Your task to perform on an android device: change notifications settings Image 0: 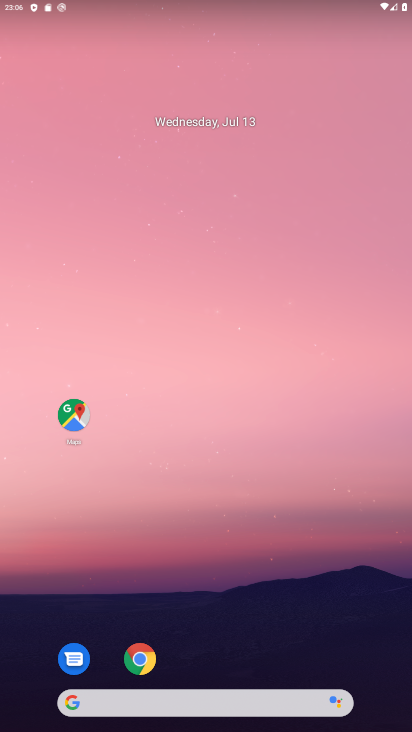
Step 0: drag from (361, 639) to (324, 228)
Your task to perform on an android device: change notifications settings Image 1: 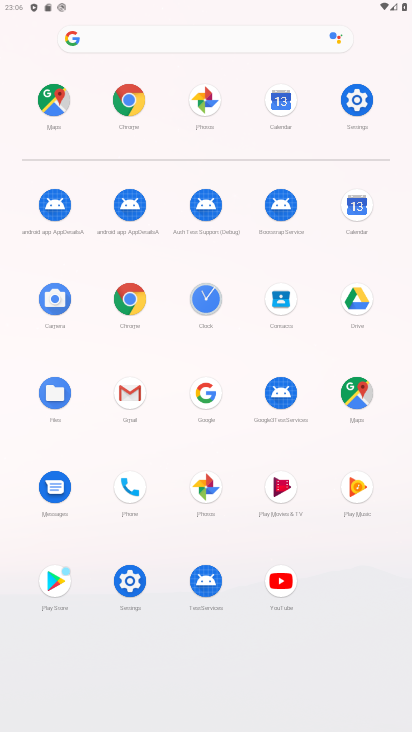
Step 1: click (131, 581)
Your task to perform on an android device: change notifications settings Image 2: 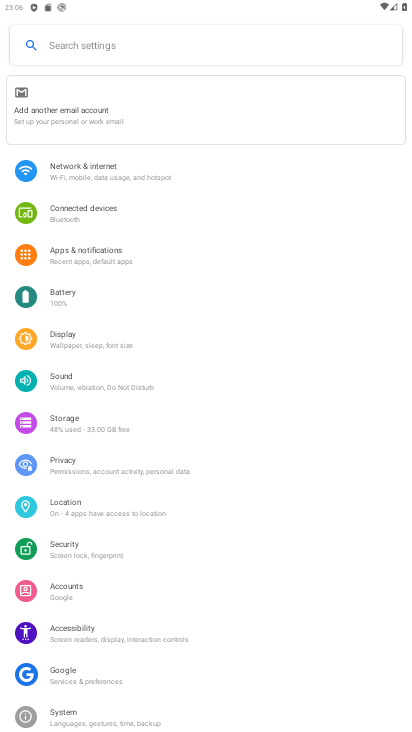
Step 2: click (83, 252)
Your task to perform on an android device: change notifications settings Image 3: 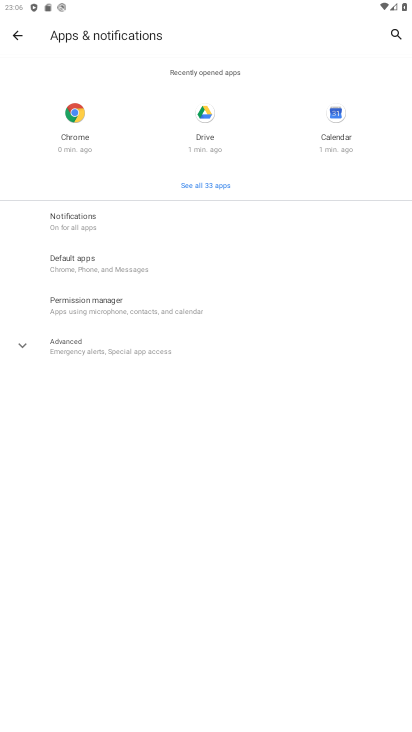
Step 3: click (62, 220)
Your task to perform on an android device: change notifications settings Image 4: 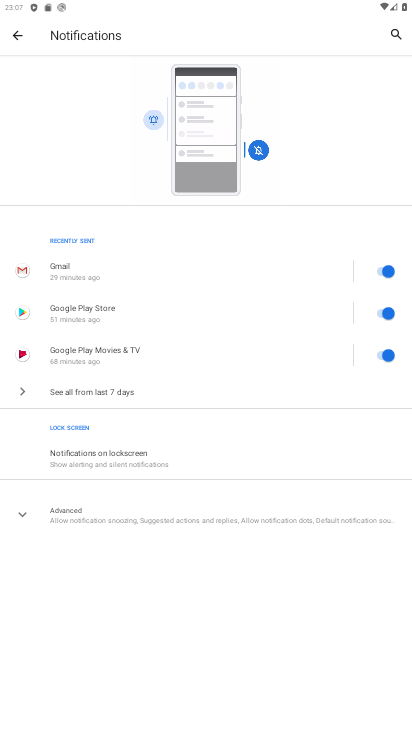
Step 4: click (18, 511)
Your task to perform on an android device: change notifications settings Image 5: 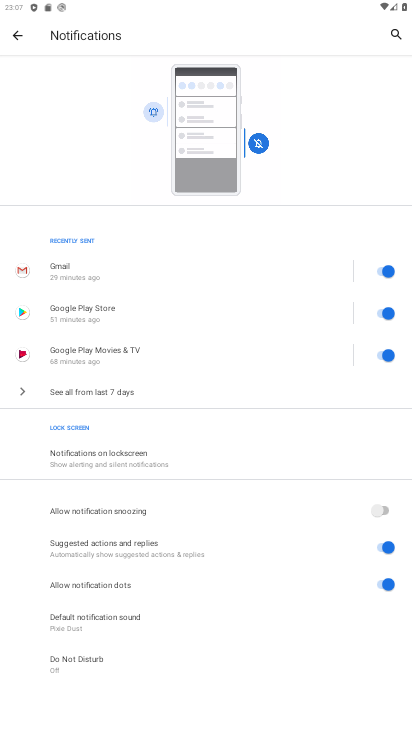
Step 5: click (379, 589)
Your task to perform on an android device: change notifications settings Image 6: 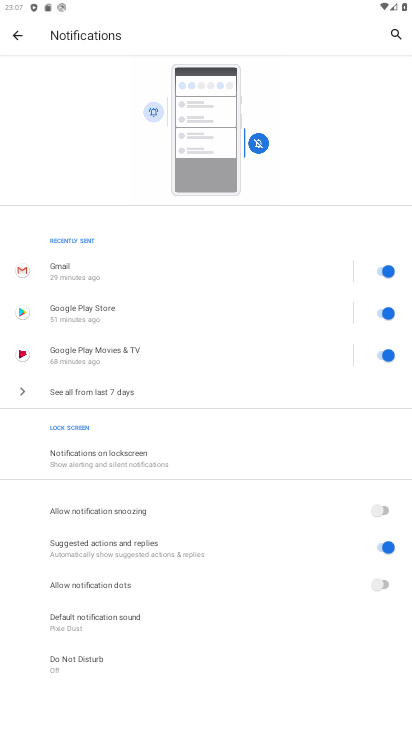
Step 6: click (384, 508)
Your task to perform on an android device: change notifications settings Image 7: 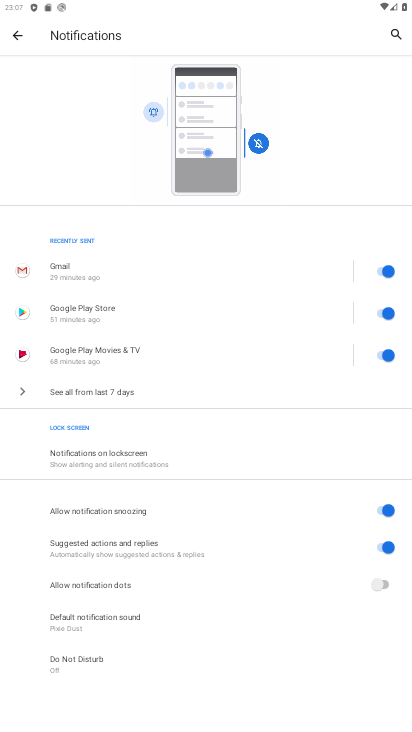
Step 7: task complete